Your task to perform on an android device: turn vacation reply on in the gmail app Image 0: 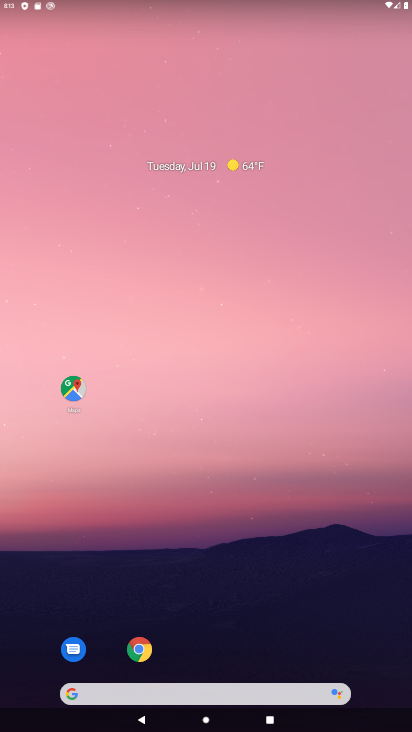
Step 0: drag from (210, 638) to (213, 33)
Your task to perform on an android device: turn vacation reply on in the gmail app Image 1: 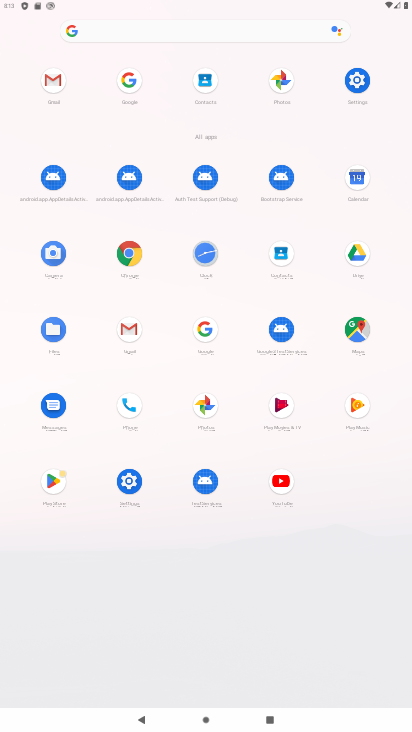
Step 1: click (58, 85)
Your task to perform on an android device: turn vacation reply on in the gmail app Image 2: 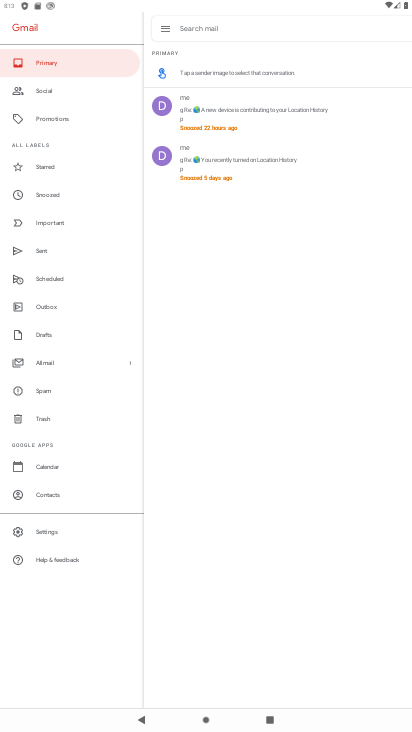
Step 2: click (58, 529)
Your task to perform on an android device: turn vacation reply on in the gmail app Image 3: 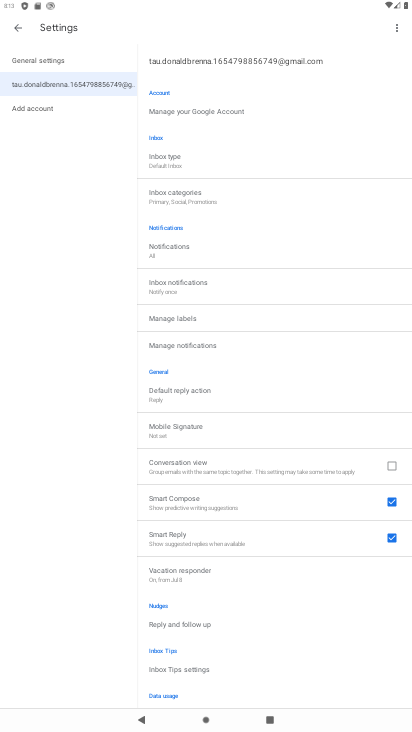
Step 3: click (210, 569)
Your task to perform on an android device: turn vacation reply on in the gmail app Image 4: 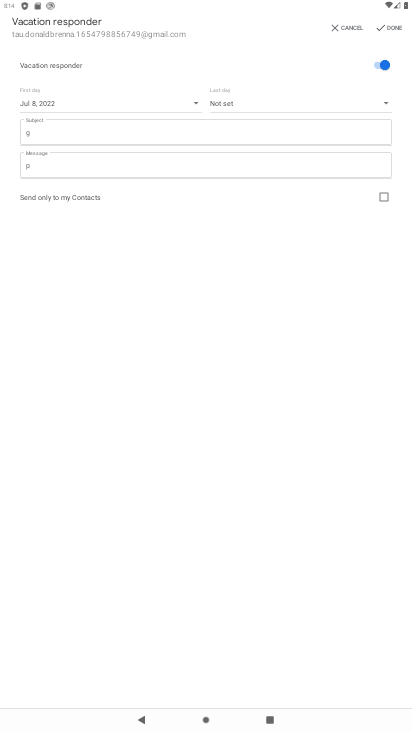
Step 4: task complete